Your task to perform on an android device: Clear all items from cart on bestbuy. Search for logitech g933 on bestbuy, select the first entry, add it to the cart, then select checkout. Image 0: 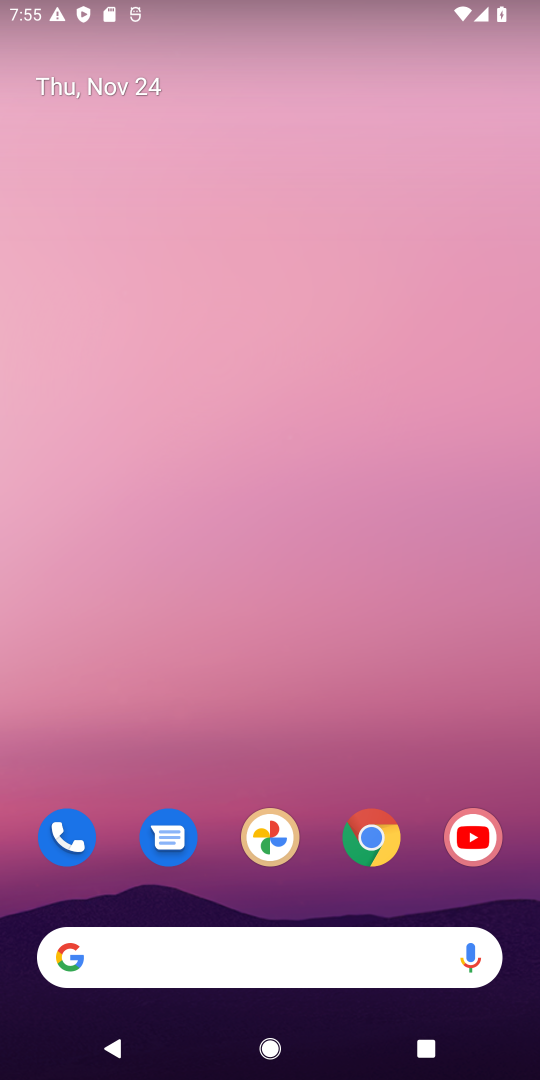
Step 0: click (372, 844)
Your task to perform on an android device: Clear all items from cart on bestbuy. Search for logitech g933 on bestbuy, select the first entry, add it to the cart, then select checkout. Image 1: 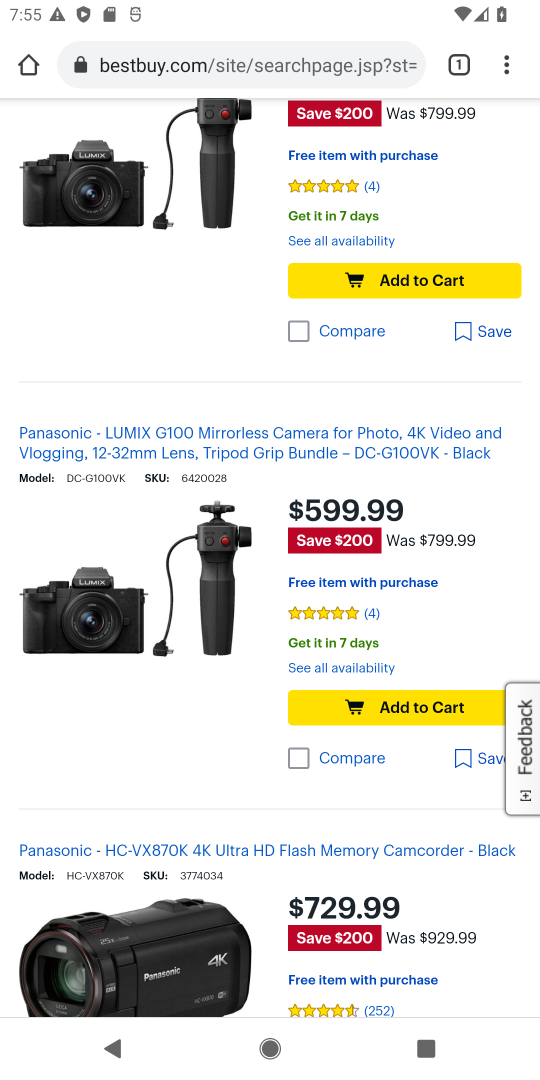
Step 1: click (313, 63)
Your task to perform on an android device: Clear all items from cart on bestbuy. Search for logitech g933 on bestbuy, select the first entry, add it to the cart, then select checkout. Image 2: 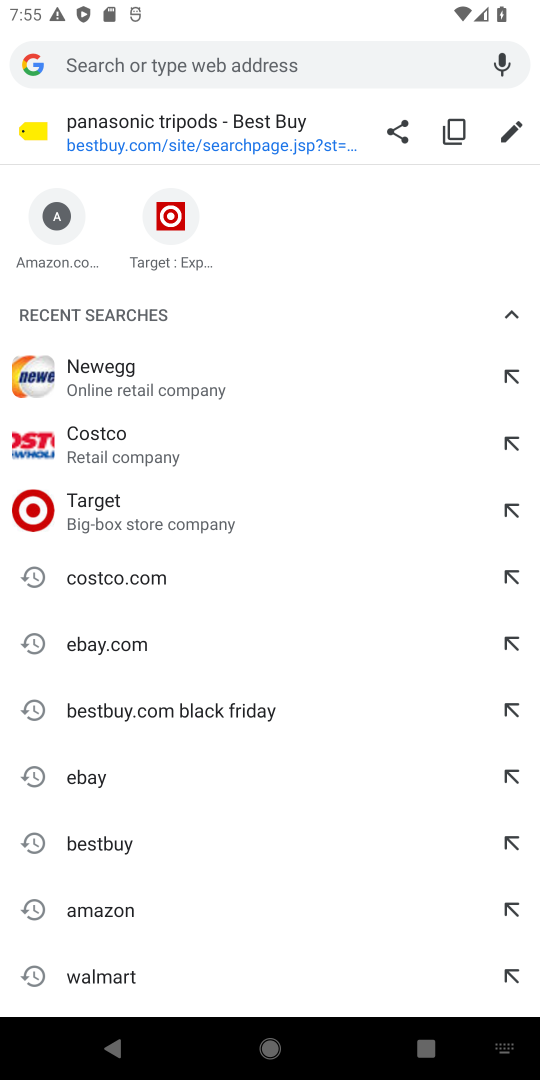
Step 2: press back button
Your task to perform on an android device: Clear all items from cart on bestbuy. Search for logitech g933 on bestbuy, select the first entry, add it to the cart, then select checkout. Image 3: 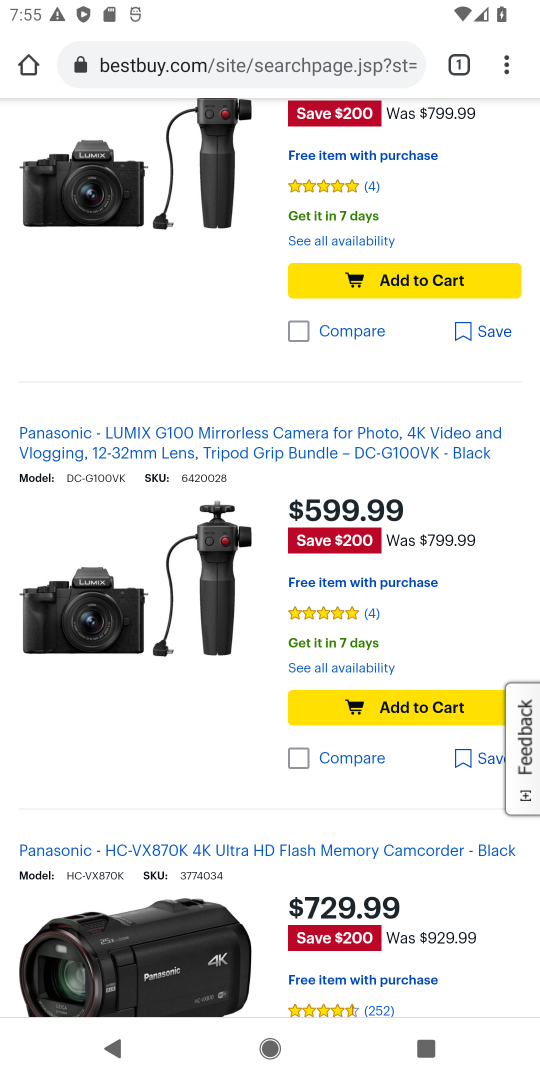
Step 3: drag from (312, 371) to (326, 924)
Your task to perform on an android device: Clear all items from cart on bestbuy. Search for logitech g933 on bestbuy, select the first entry, add it to the cart, then select checkout. Image 4: 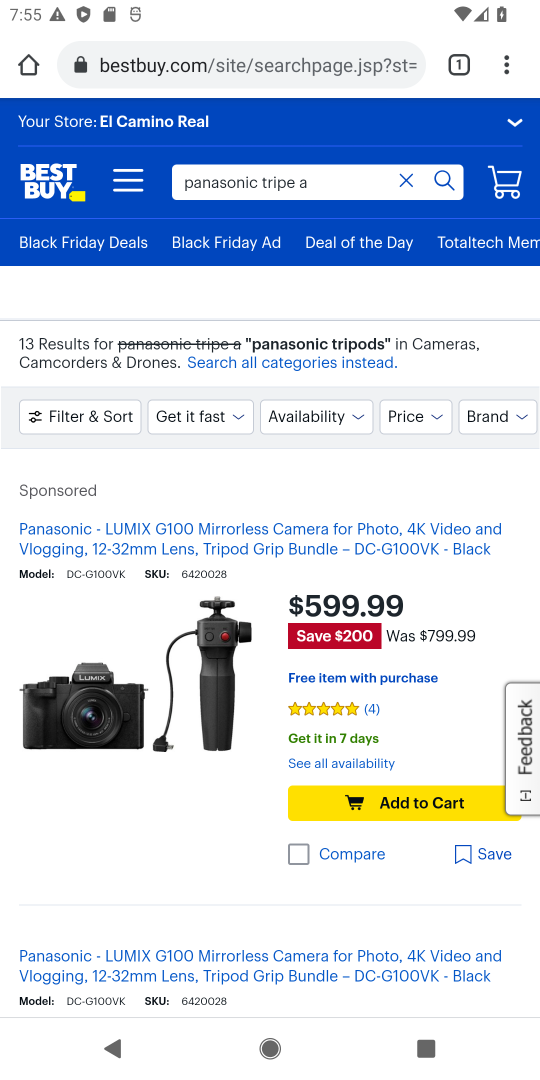
Step 4: click (492, 183)
Your task to perform on an android device: Clear all items from cart on bestbuy. Search for logitech g933 on bestbuy, select the first entry, add it to the cart, then select checkout. Image 5: 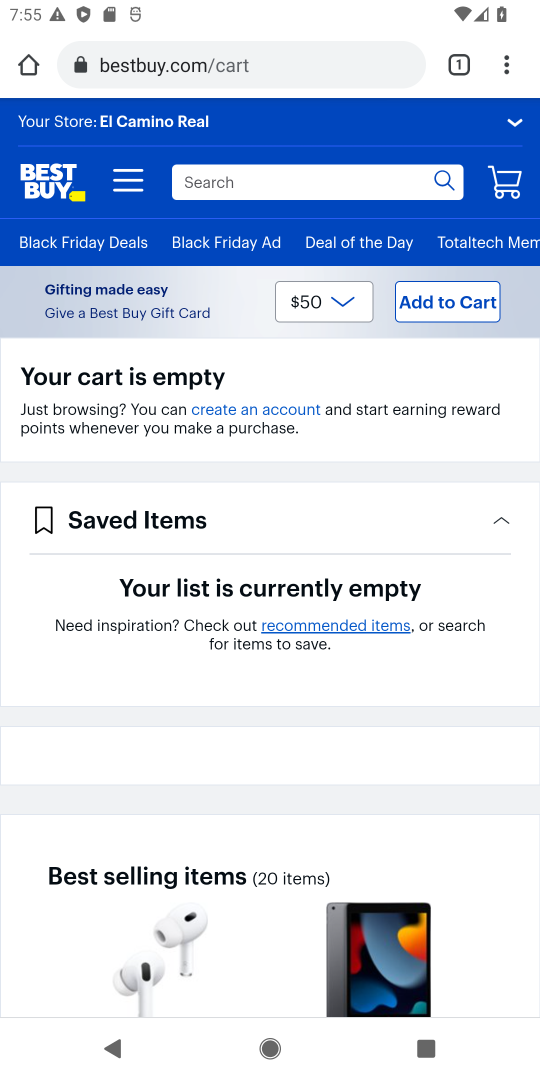
Step 5: click (293, 187)
Your task to perform on an android device: Clear all items from cart on bestbuy. Search for logitech g933 on bestbuy, select the first entry, add it to the cart, then select checkout. Image 6: 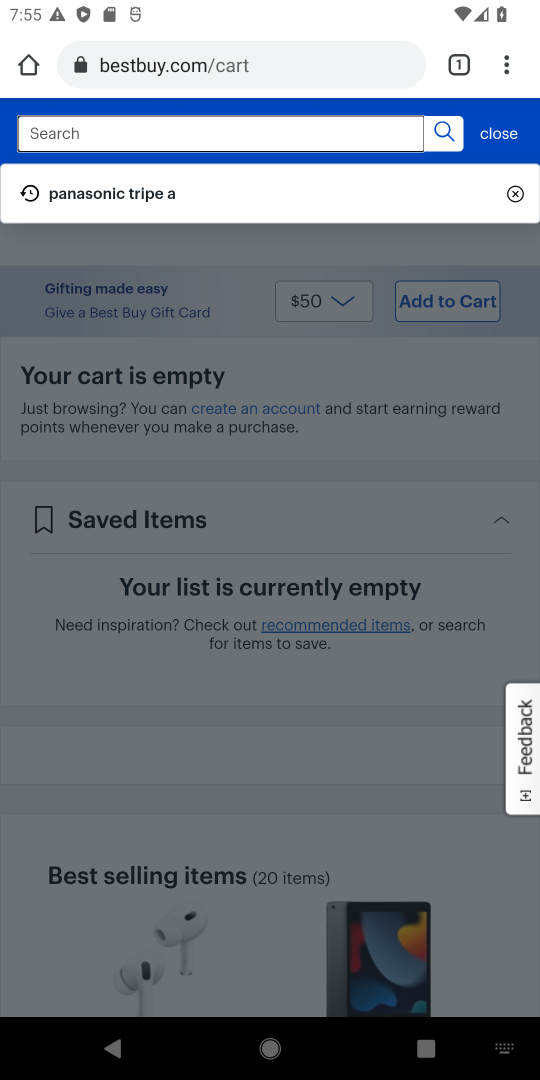
Step 6: type "logitech g933"
Your task to perform on an android device: Clear all items from cart on bestbuy. Search for logitech g933 on bestbuy, select the first entry, add it to the cart, then select checkout. Image 7: 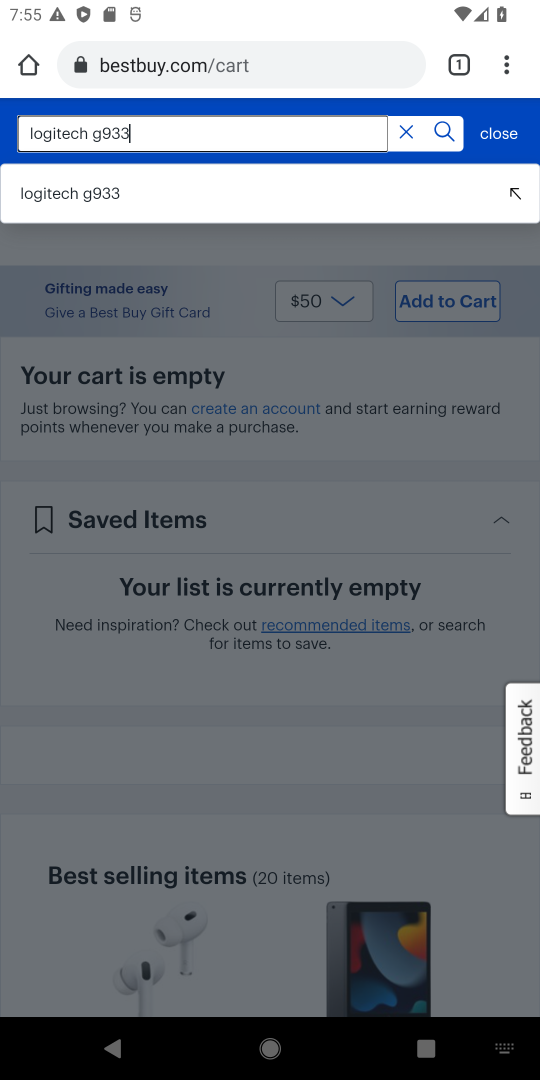
Step 7: click (444, 129)
Your task to perform on an android device: Clear all items from cart on bestbuy. Search for logitech g933 on bestbuy, select the first entry, add it to the cart, then select checkout. Image 8: 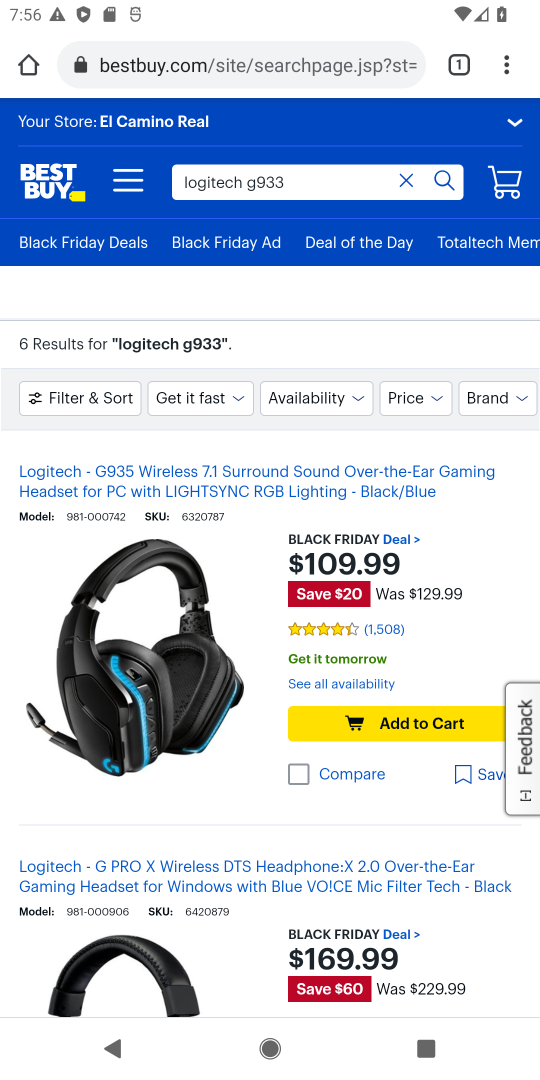
Step 8: click (359, 722)
Your task to perform on an android device: Clear all items from cart on bestbuy. Search for logitech g933 on bestbuy, select the first entry, add it to the cart, then select checkout. Image 9: 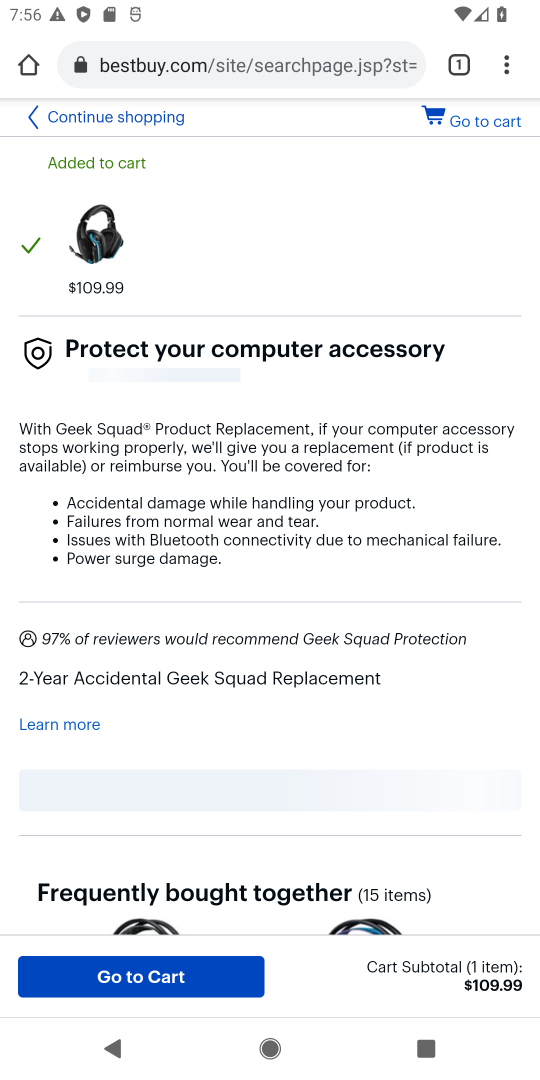
Step 9: click (172, 980)
Your task to perform on an android device: Clear all items from cart on bestbuy. Search for logitech g933 on bestbuy, select the first entry, add it to the cart, then select checkout. Image 10: 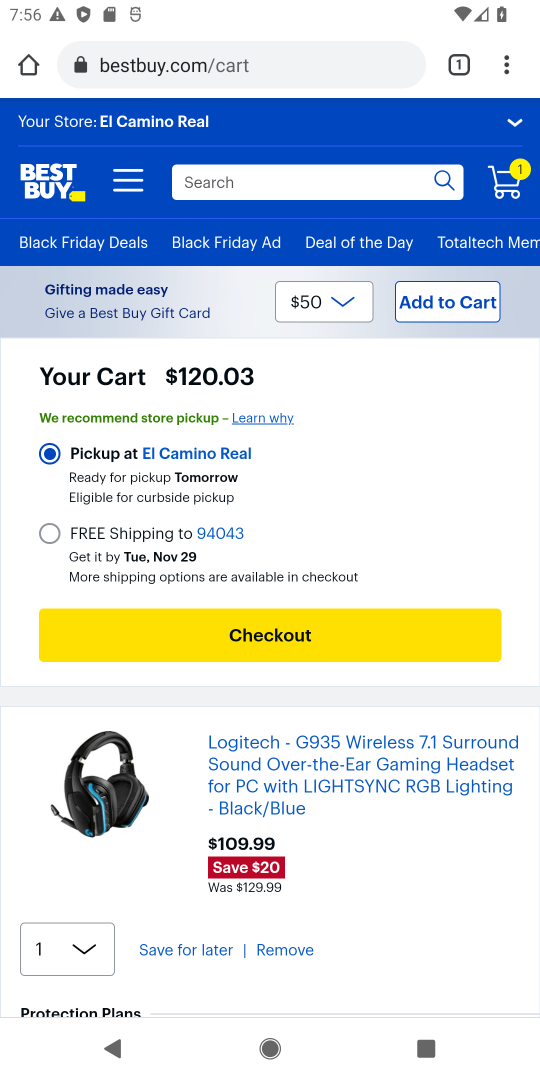
Step 10: click (311, 628)
Your task to perform on an android device: Clear all items from cart on bestbuy. Search for logitech g933 on bestbuy, select the first entry, add it to the cart, then select checkout. Image 11: 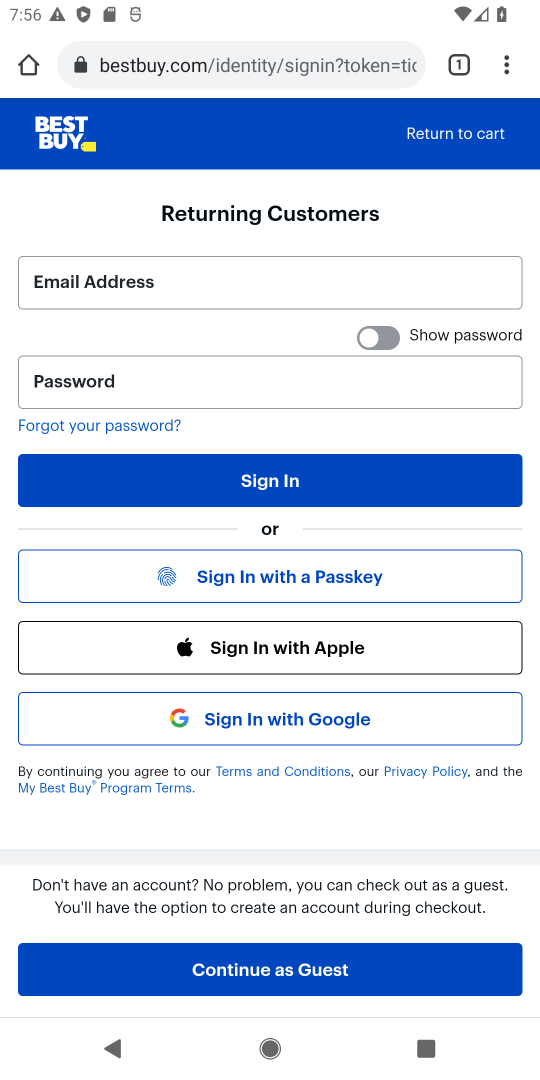
Step 11: task complete